Your task to perform on an android device: Open Amazon Image 0: 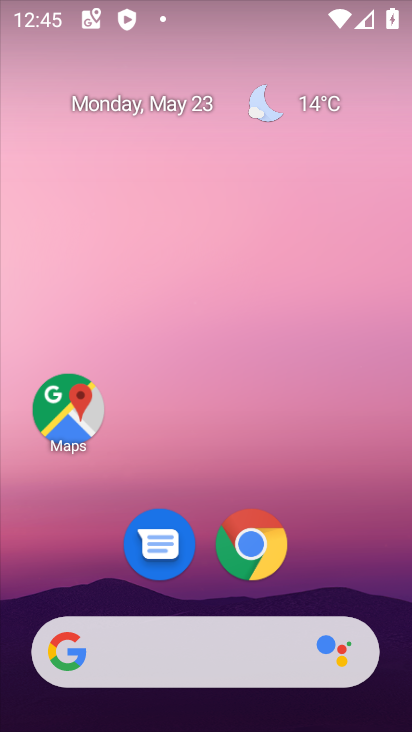
Step 0: click (253, 539)
Your task to perform on an android device: Open Amazon Image 1: 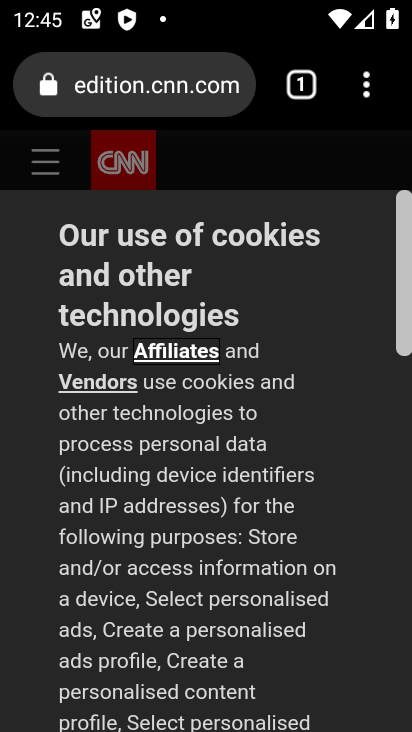
Step 1: click (151, 78)
Your task to perform on an android device: Open Amazon Image 2: 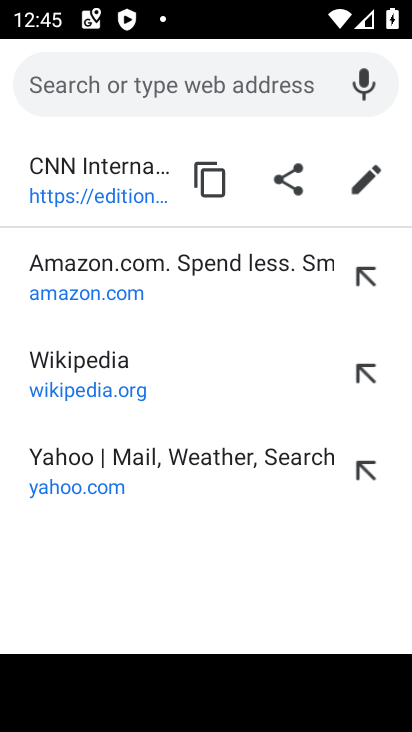
Step 2: click (56, 291)
Your task to perform on an android device: Open Amazon Image 3: 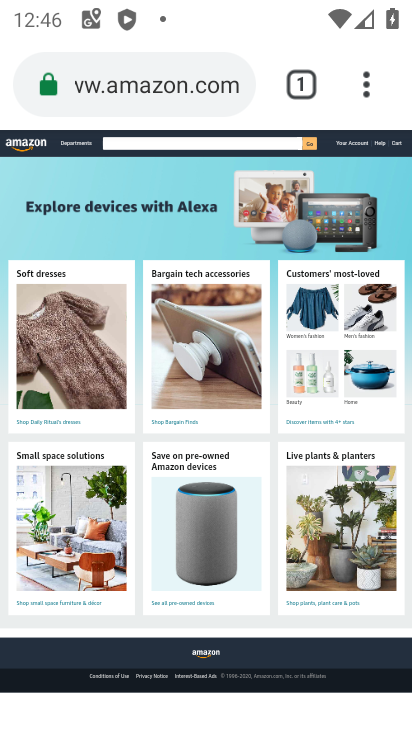
Step 3: task complete